Your task to perform on an android device: turn off airplane mode Image 0: 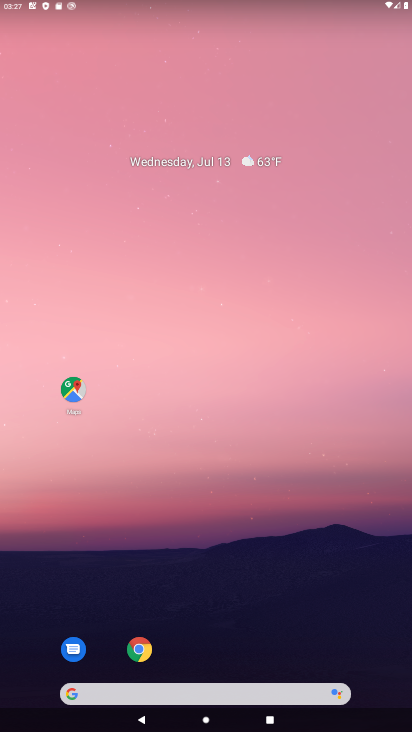
Step 0: drag from (336, 606) to (294, 124)
Your task to perform on an android device: turn off airplane mode Image 1: 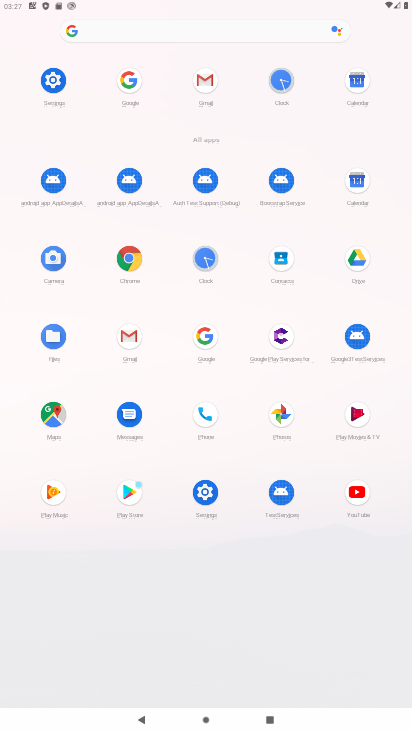
Step 1: click (58, 70)
Your task to perform on an android device: turn off airplane mode Image 2: 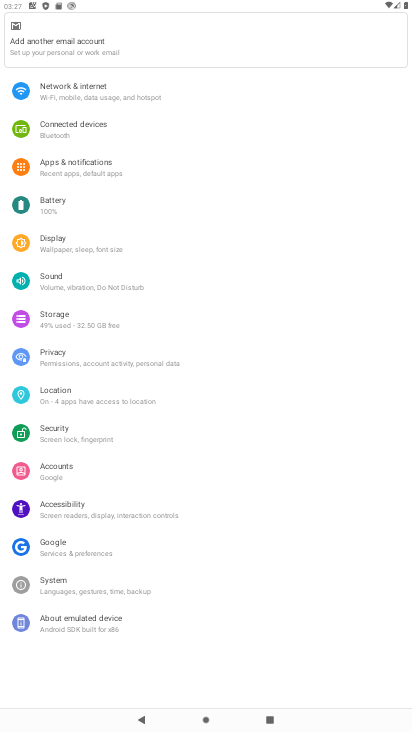
Step 2: click (66, 87)
Your task to perform on an android device: turn off airplane mode Image 3: 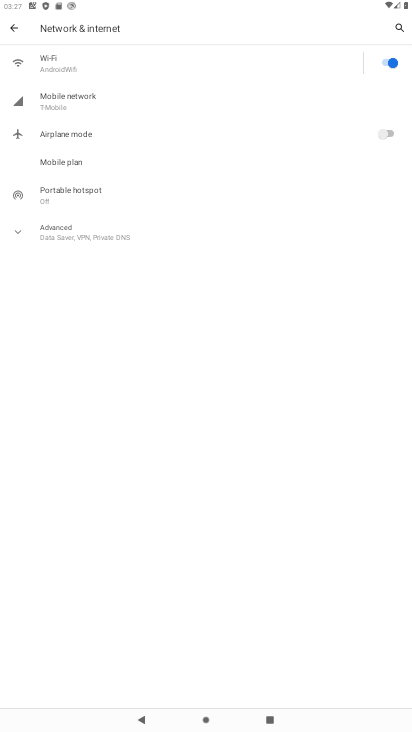
Step 3: task complete